Your task to perform on an android device: turn off priority inbox in the gmail app Image 0: 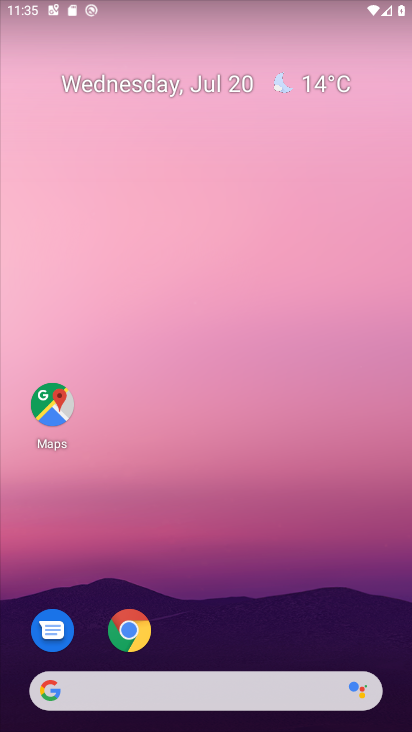
Step 0: drag from (230, 656) to (169, 31)
Your task to perform on an android device: turn off priority inbox in the gmail app Image 1: 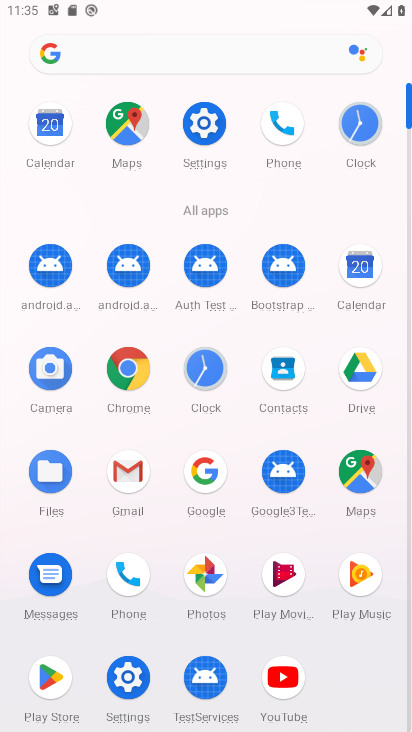
Step 1: click (143, 460)
Your task to perform on an android device: turn off priority inbox in the gmail app Image 2: 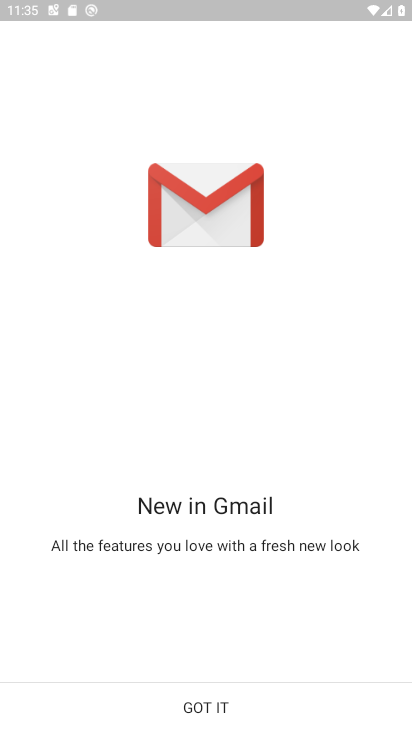
Step 2: click (209, 686)
Your task to perform on an android device: turn off priority inbox in the gmail app Image 3: 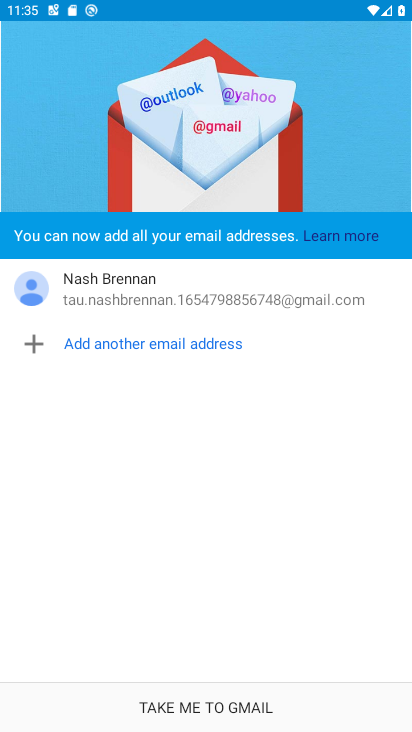
Step 3: click (207, 695)
Your task to perform on an android device: turn off priority inbox in the gmail app Image 4: 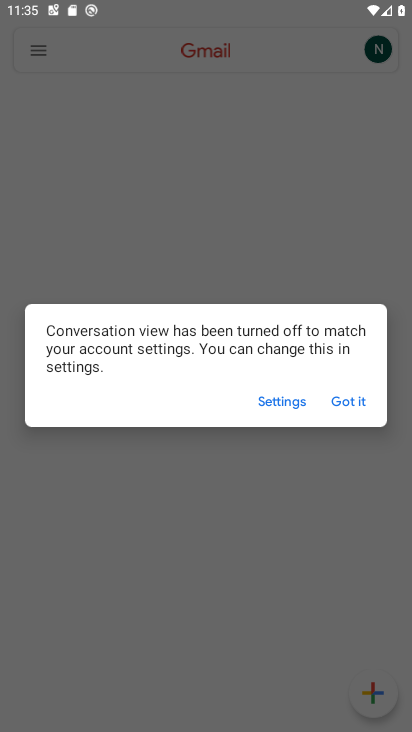
Step 4: click (355, 398)
Your task to perform on an android device: turn off priority inbox in the gmail app Image 5: 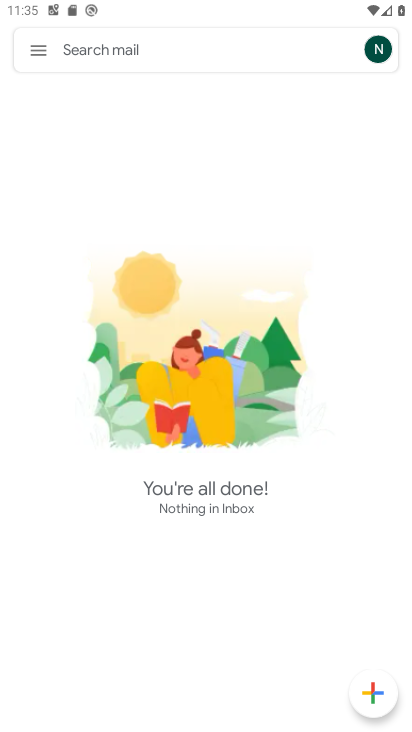
Step 5: click (38, 44)
Your task to perform on an android device: turn off priority inbox in the gmail app Image 6: 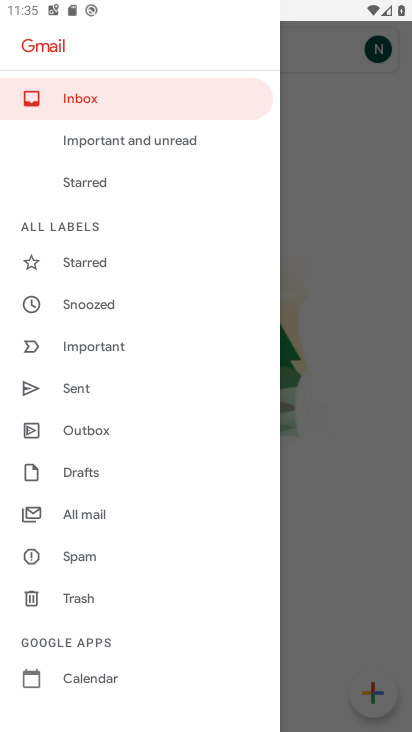
Step 6: drag from (125, 596) to (101, 211)
Your task to perform on an android device: turn off priority inbox in the gmail app Image 7: 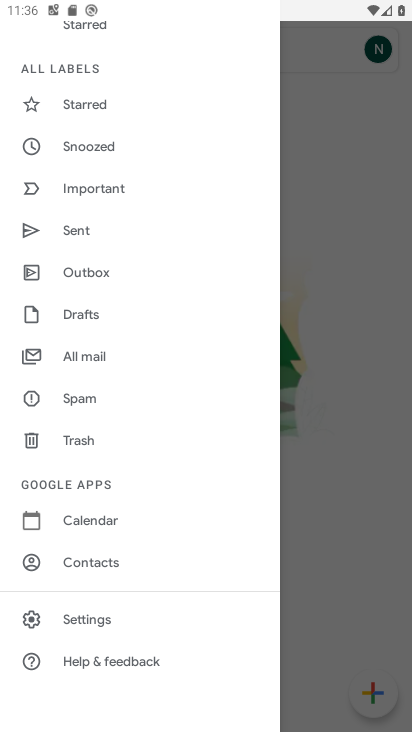
Step 7: click (61, 621)
Your task to perform on an android device: turn off priority inbox in the gmail app Image 8: 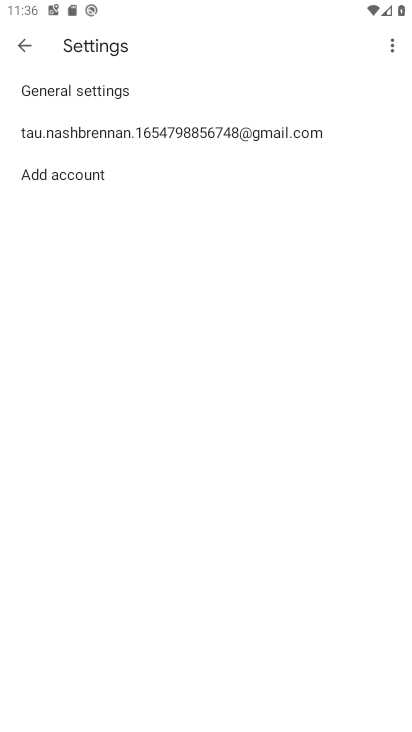
Step 8: click (63, 145)
Your task to perform on an android device: turn off priority inbox in the gmail app Image 9: 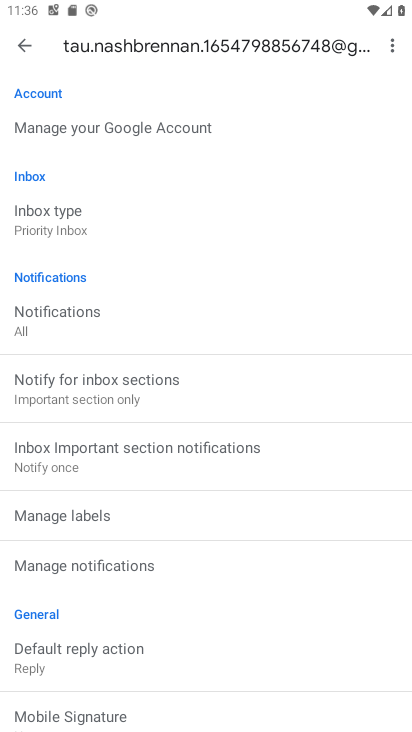
Step 9: click (56, 234)
Your task to perform on an android device: turn off priority inbox in the gmail app Image 10: 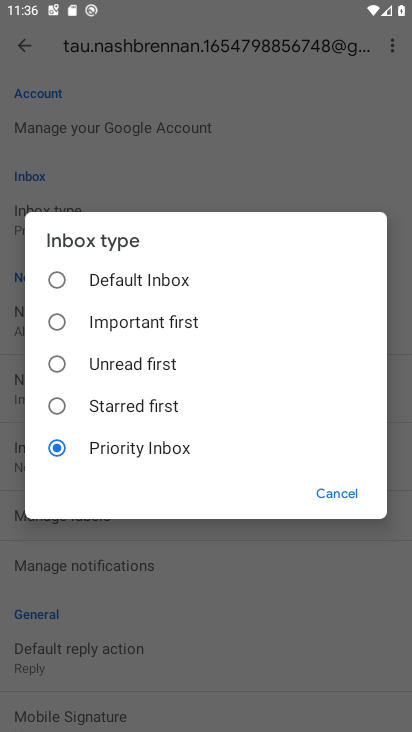
Step 10: click (79, 284)
Your task to perform on an android device: turn off priority inbox in the gmail app Image 11: 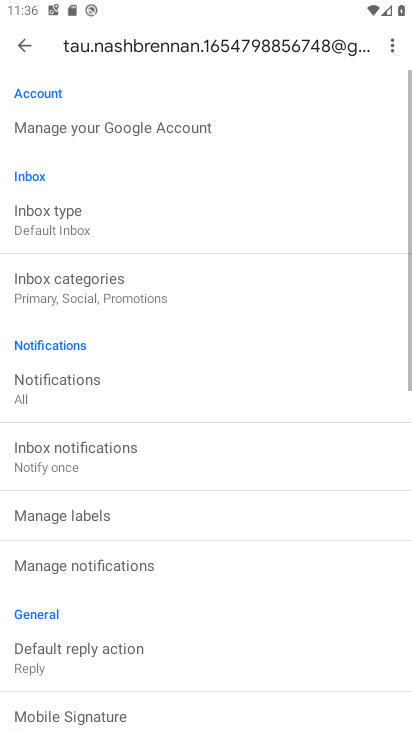
Step 11: task complete